Your task to perform on an android device: See recent photos Image 0: 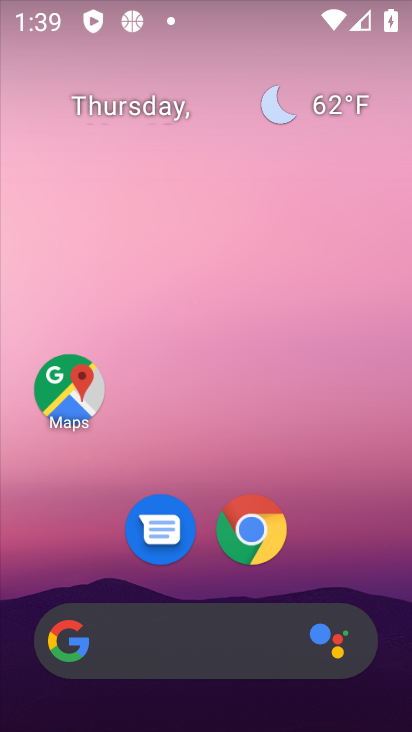
Step 0: drag from (332, 563) to (322, 96)
Your task to perform on an android device: See recent photos Image 1: 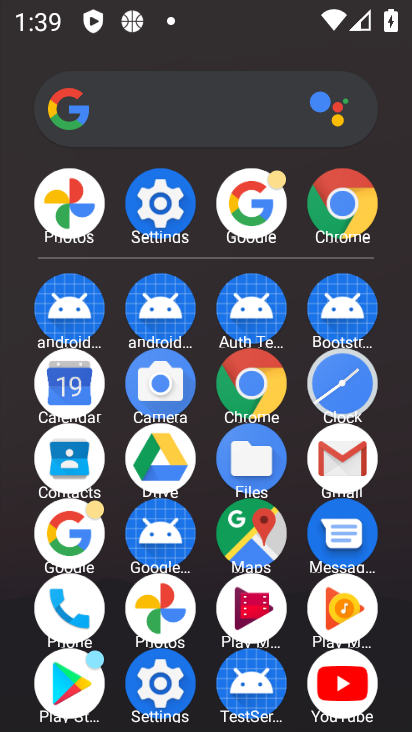
Step 1: click (68, 200)
Your task to perform on an android device: See recent photos Image 2: 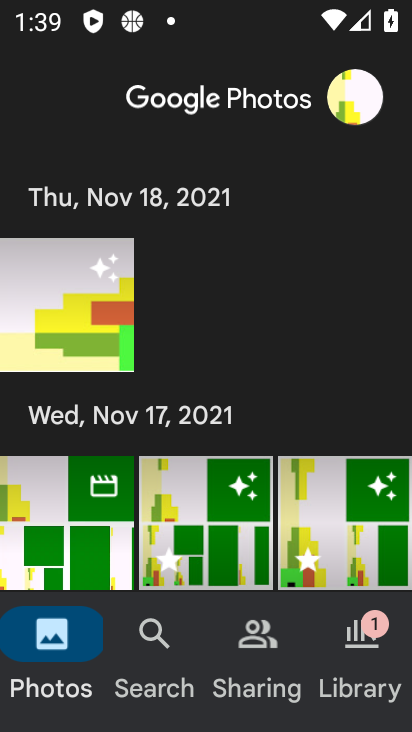
Step 2: click (60, 351)
Your task to perform on an android device: See recent photos Image 3: 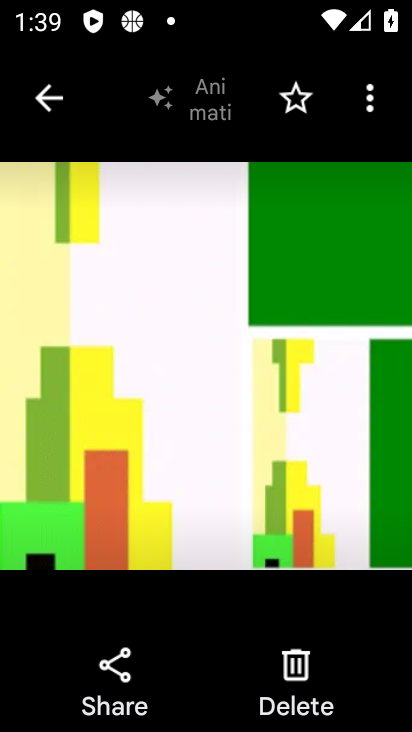
Step 3: task complete